Your task to perform on an android device: show emergency info Image 0: 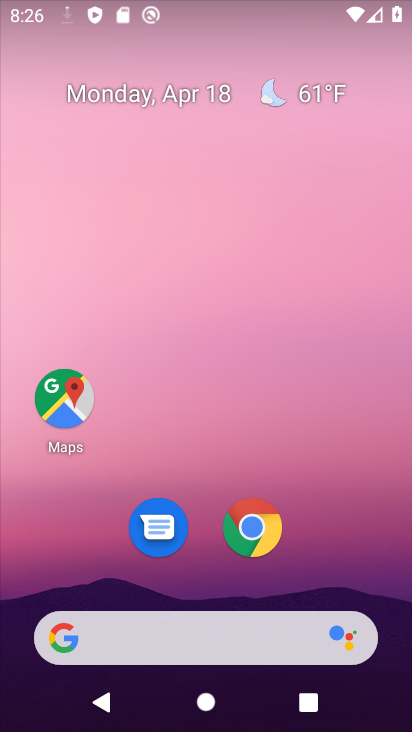
Step 0: drag from (372, 513) to (364, 1)
Your task to perform on an android device: show emergency info Image 1: 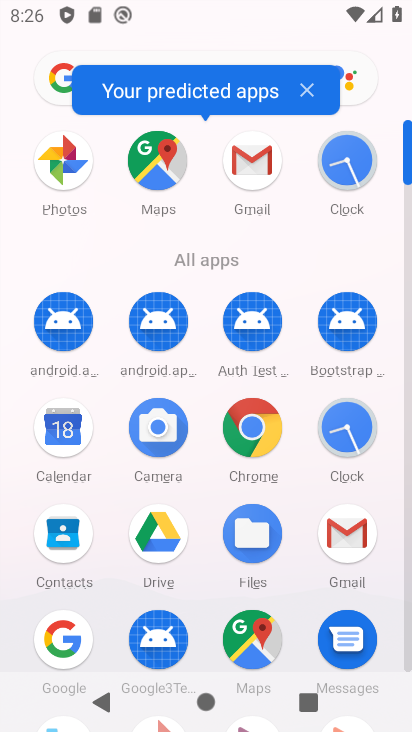
Step 1: drag from (408, 572) to (408, 523)
Your task to perform on an android device: show emergency info Image 2: 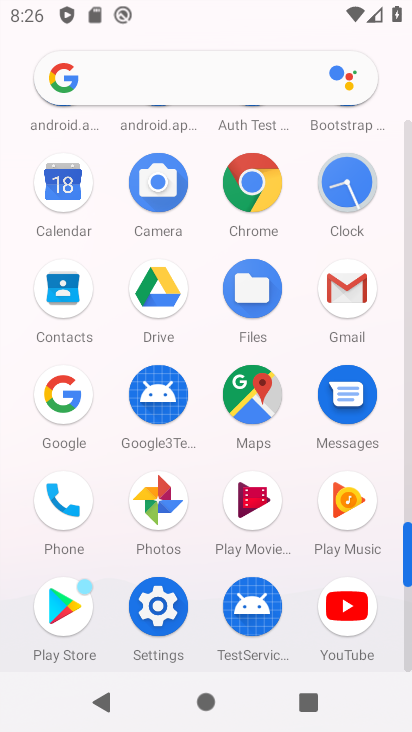
Step 2: click (163, 610)
Your task to perform on an android device: show emergency info Image 3: 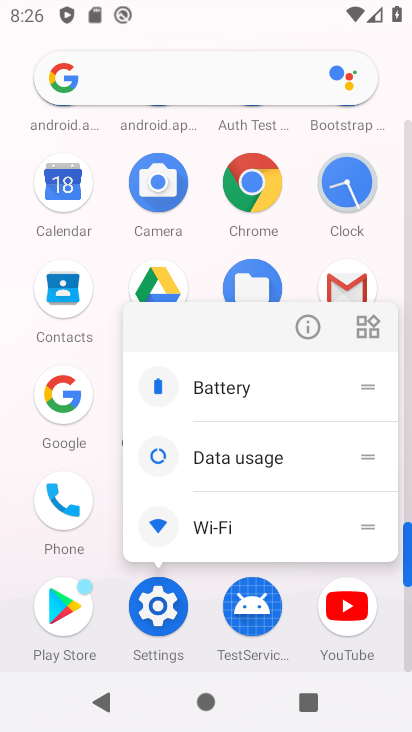
Step 3: click (161, 610)
Your task to perform on an android device: show emergency info Image 4: 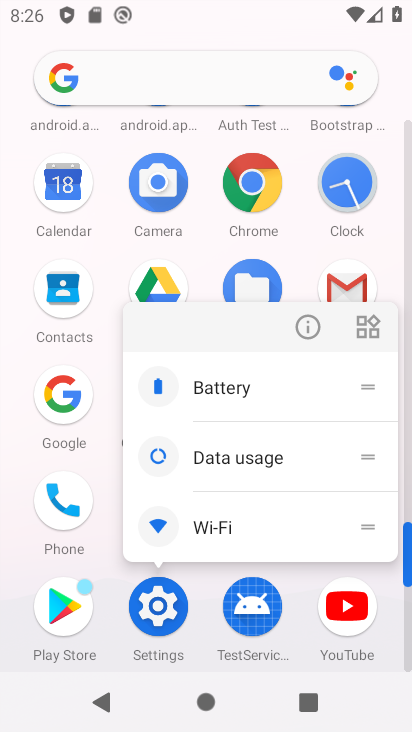
Step 4: click (154, 611)
Your task to perform on an android device: show emergency info Image 5: 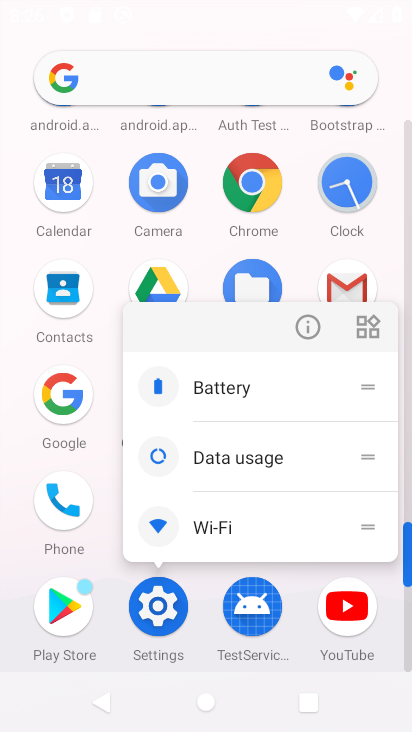
Step 5: click (167, 607)
Your task to perform on an android device: show emergency info Image 6: 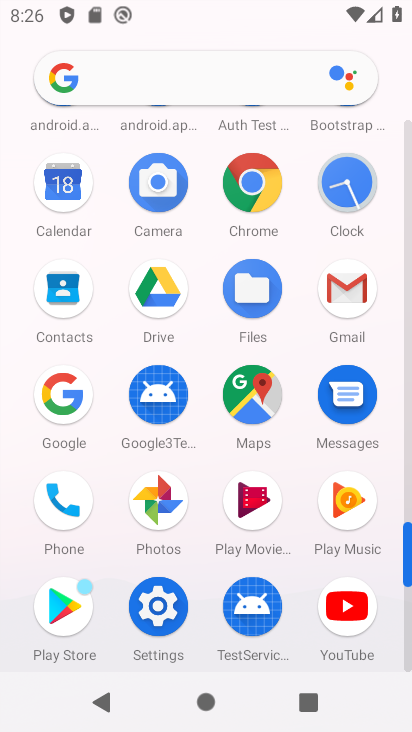
Step 6: click (147, 608)
Your task to perform on an android device: show emergency info Image 7: 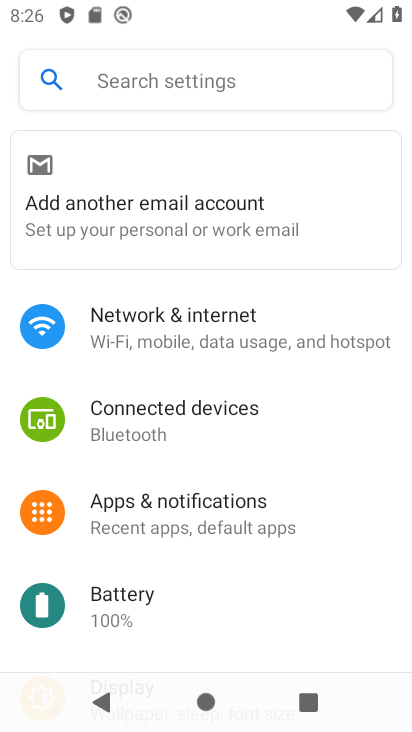
Step 7: drag from (377, 625) to (385, 135)
Your task to perform on an android device: show emergency info Image 8: 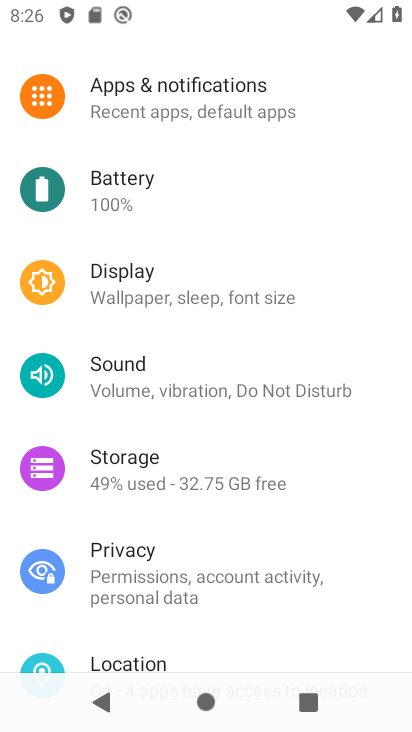
Step 8: drag from (368, 587) to (351, 157)
Your task to perform on an android device: show emergency info Image 9: 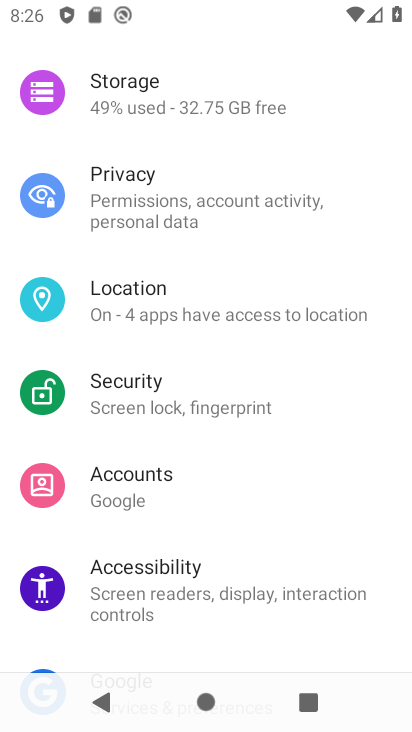
Step 9: drag from (355, 635) to (360, 218)
Your task to perform on an android device: show emergency info Image 10: 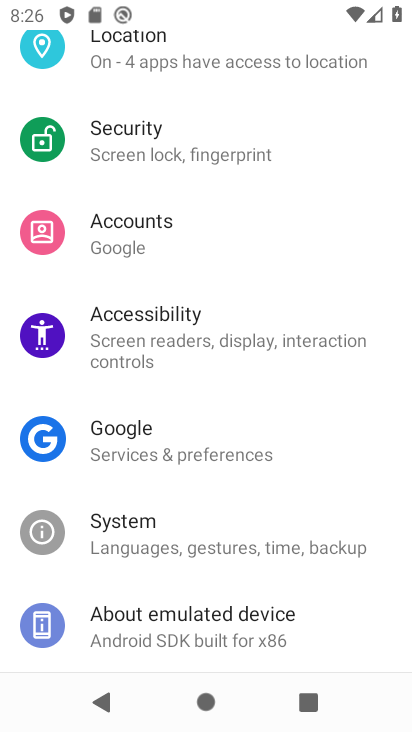
Step 10: click (154, 641)
Your task to perform on an android device: show emergency info Image 11: 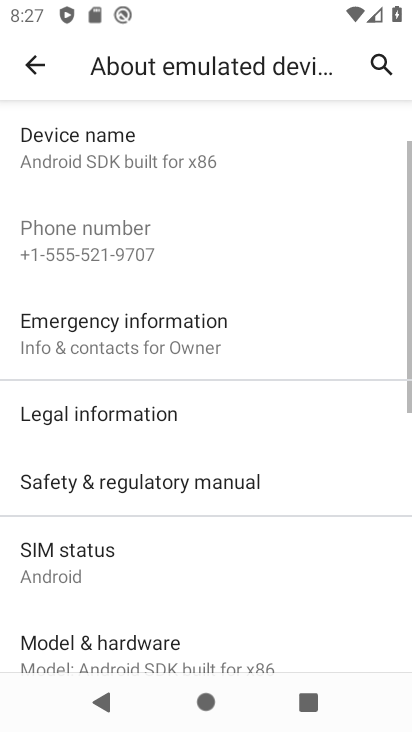
Step 11: click (99, 344)
Your task to perform on an android device: show emergency info Image 12: 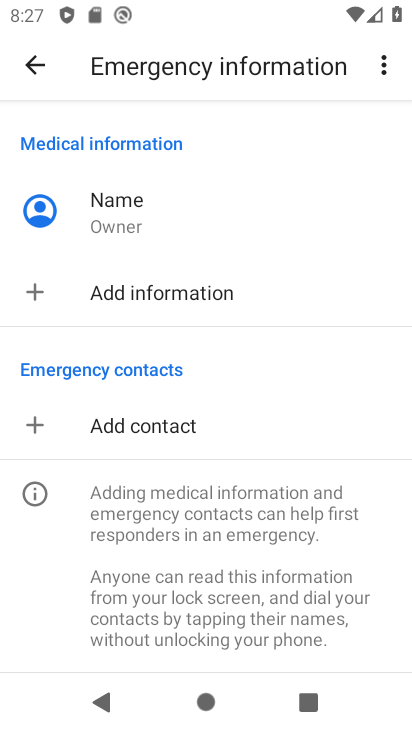
Step 12: task complete